Your task to perform on an android device: Open the stopwatch Image 0: 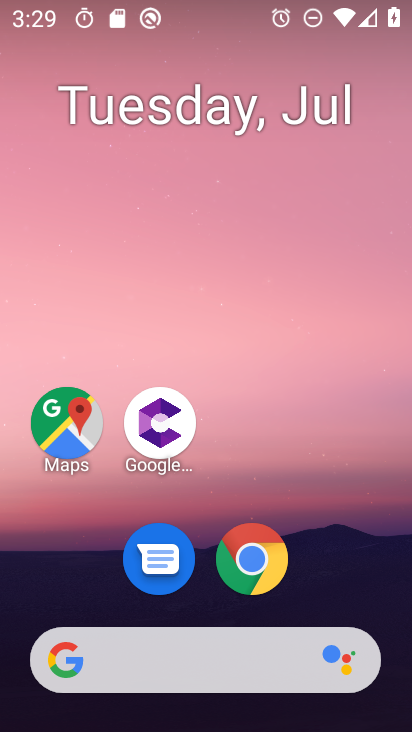
Step 0: press home button
Your task to perform on an android device: Open the stopwatch Image 1: 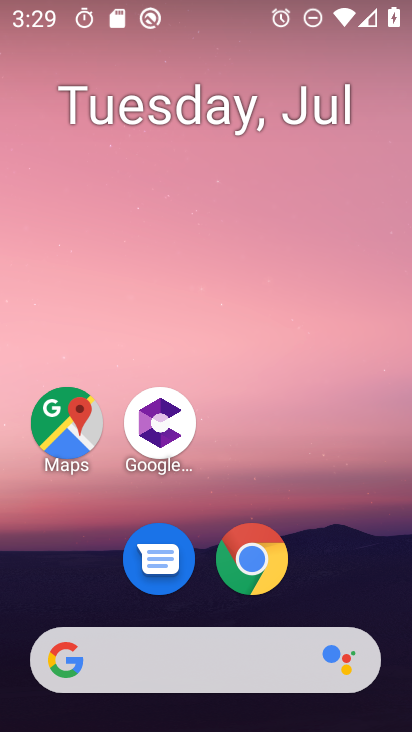
Step 1: drag from (359, 571) to (402, 118)
Your task to perform on an android device: Open the stopwatch Image 2: 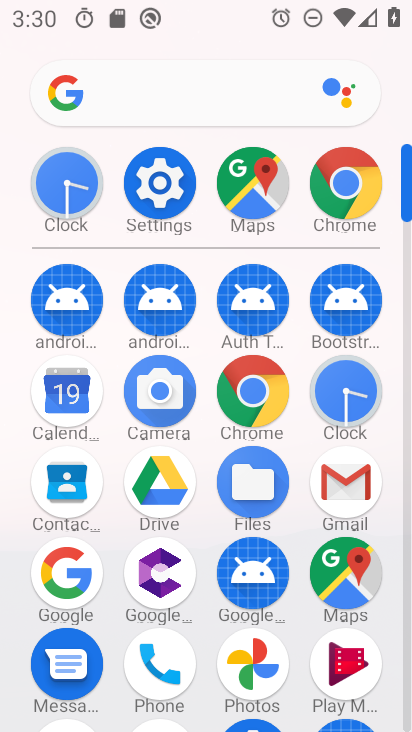
Step 2: click (352, 392)
Your task to perform on an android device: Open the stopwatch Image 3: 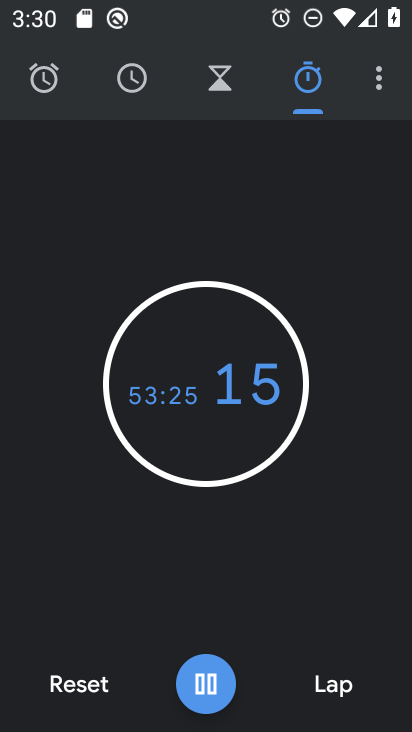
Step 3: task complete